Your task to perform on an android device: Search for Italian restaurants on Maps Image 0: 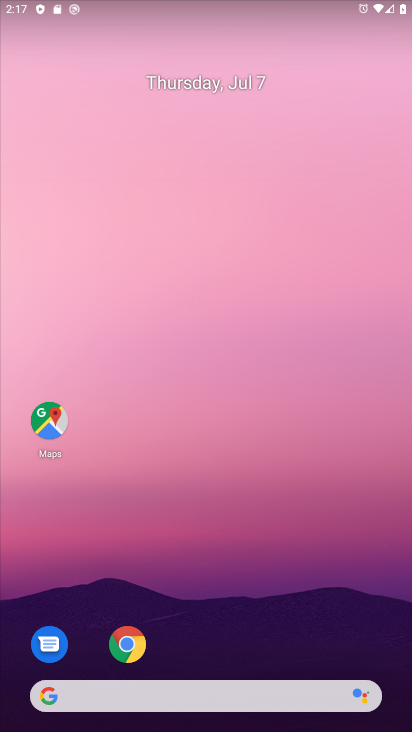
Step 0: click (35, 424)
Your task to perform on an android device: Search for Italian restaurants on Maps Image 1: 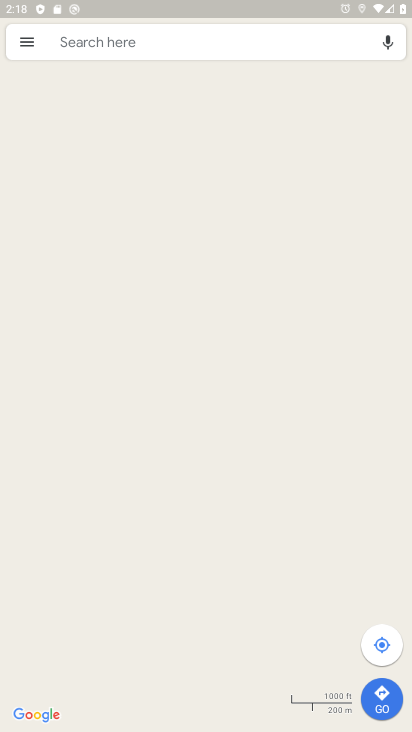
Step 1: click (180, 31)
Your task to perform on an android device: Search for Italian restaurants on Maps Image 2: 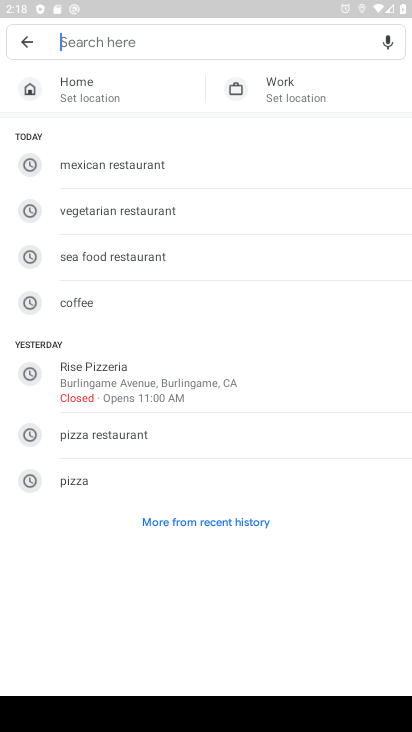
Step 2: type "iralian restaurants"
Your task to perform on an android device: Search for Italian restaurants on Maps Image 3: 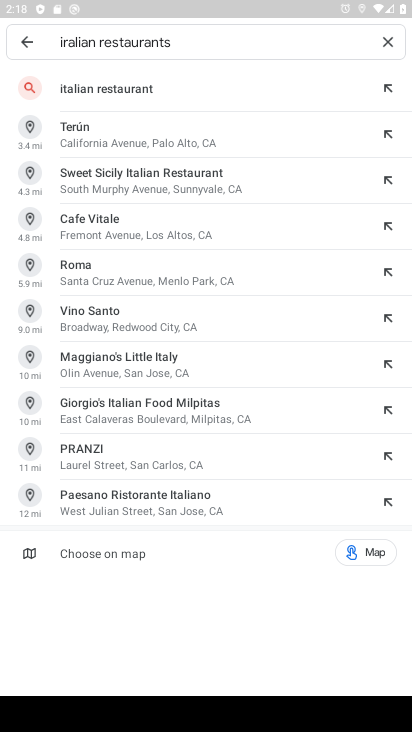
Step 3: click (170, 89)
Your task to perform on an android device: Search for Italian restaurants on Maps Image 4: 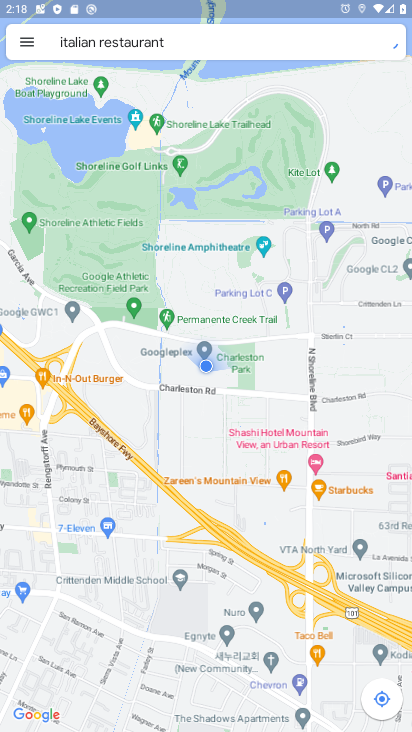
Step 4: click (227, 31)
Your task to perform on an android device: Search for Italian restaurants on Maps Image 5: 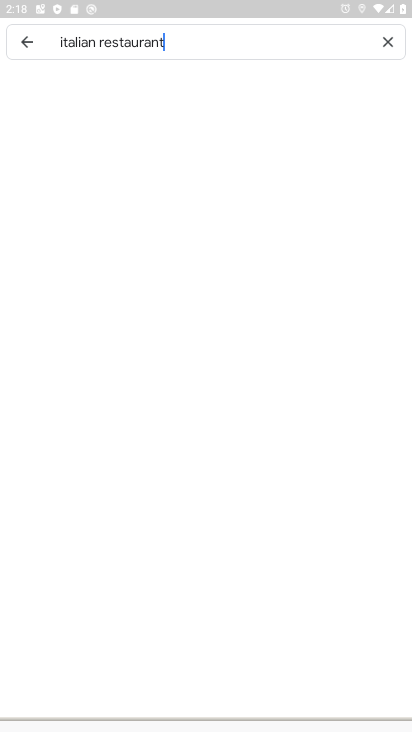
Step 5: task complete